Your task to perform on an android device: turn on javascript in the chrome app Image 0: 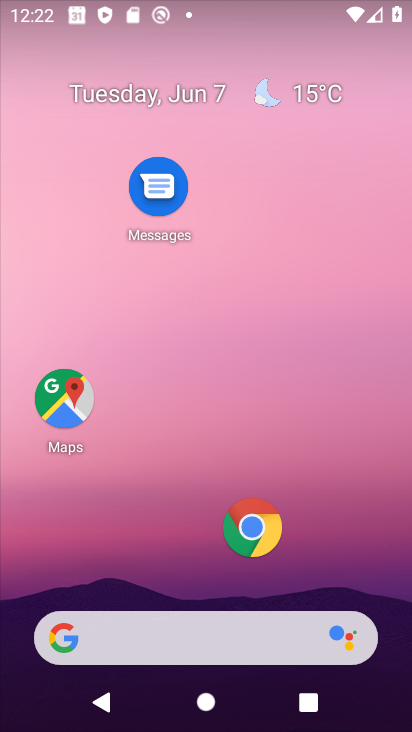
Step 0: click (258, 529)
Your task to perform on an android device: turn on javascript in the chrome app Image 1: 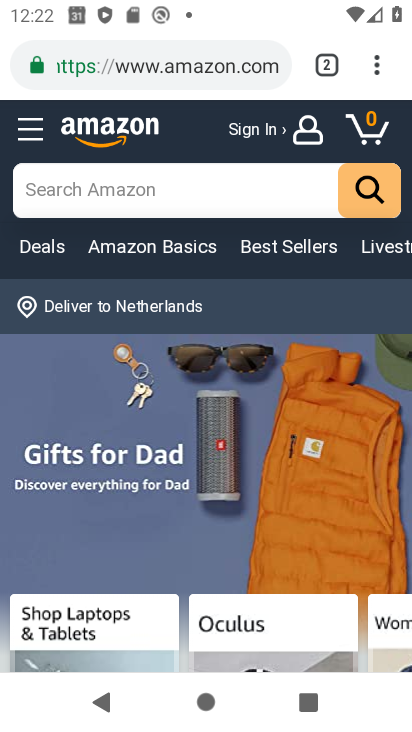
Step 1: click (381, 60)
Your task to perform on an android device: turn on javascript in the chrome app Image 2: 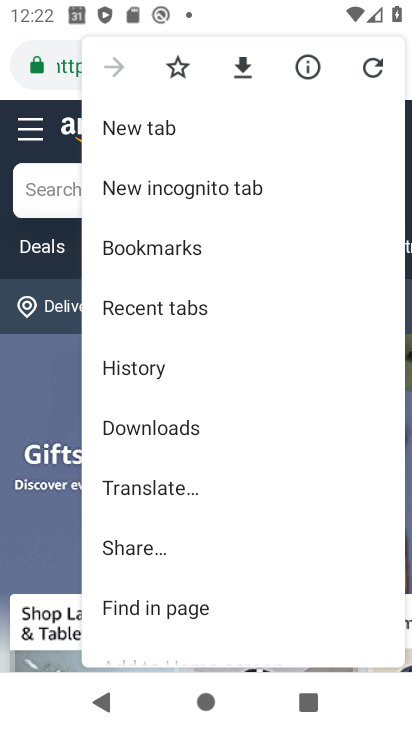
Step 2: drag from (122, 618) to (177, 257)
Your task to perform on an android device: turn on javascript in the chrome app Image 3: 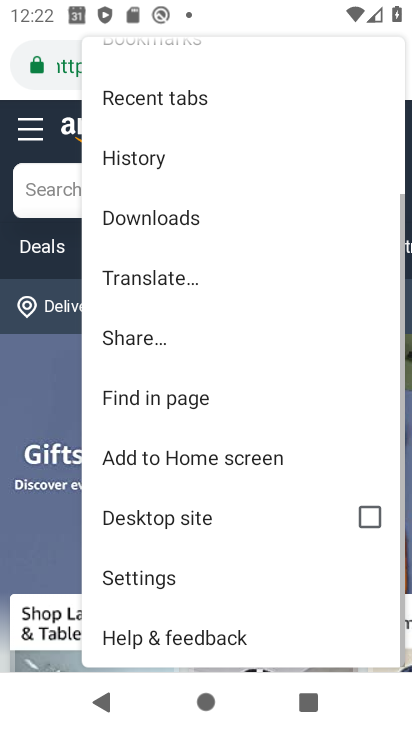
Step 3: click (141, 581)
Your task to perform on an android device: turn on javascript in the chrome app Image 4: 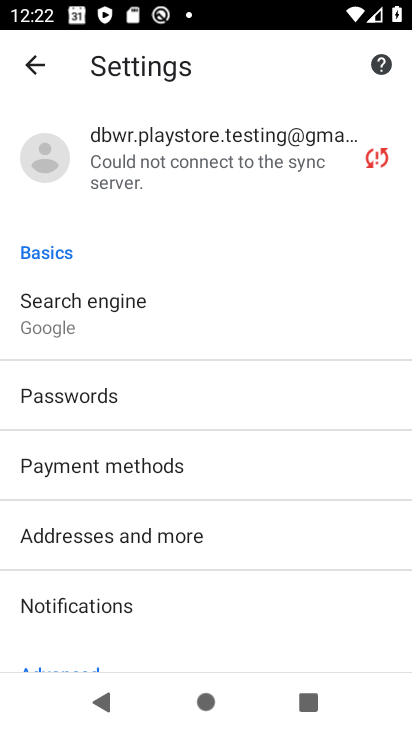
Step 4: drag from (64, 635) to (150, 336)
Your task to perform on an android device: turn on javascript in the chrome app Image 5: 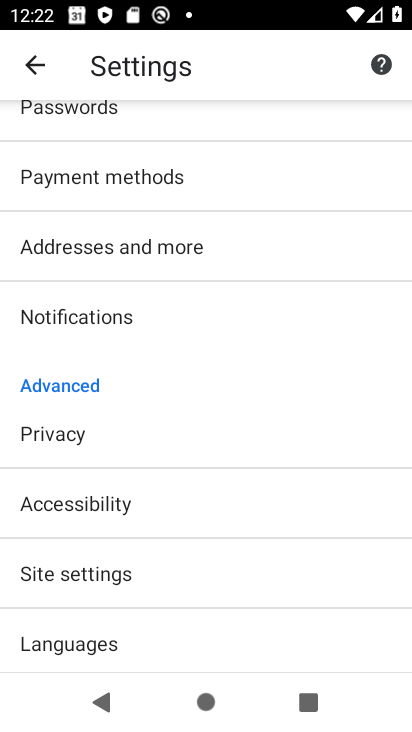
Step 5: click (57, 598)
Your task to perform on an android device: turn on javascript in the chrome app Image 6: 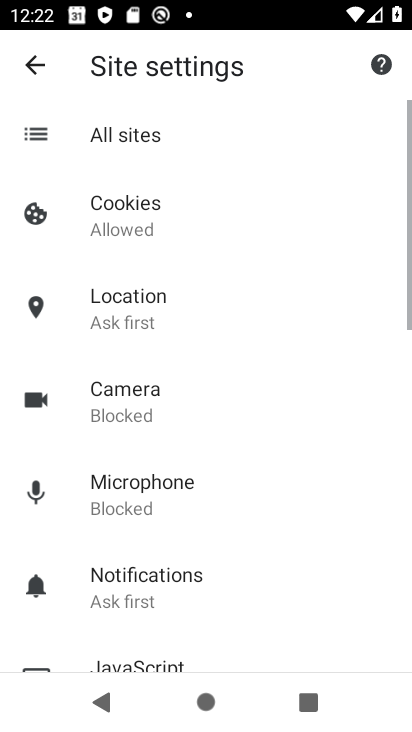
Step 6: drag from (120, 649) to (167, 274)
Your task to perform on an android device: turn on javascript in the chrome app Image 7: 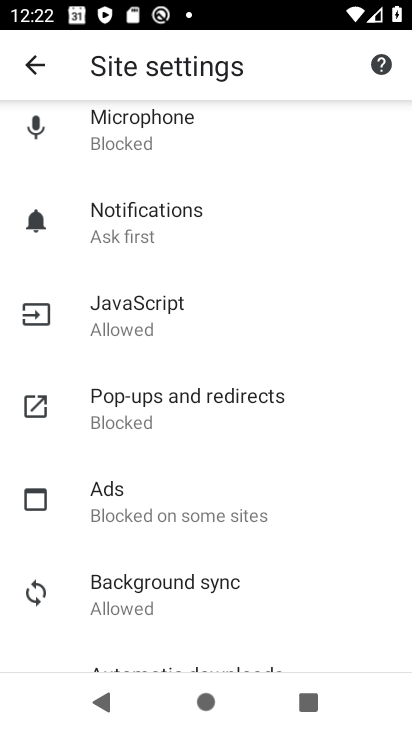
Step 7: click (115, 319)
Your task to perform on an android device: turn on javascript in the chrome app Image 8: 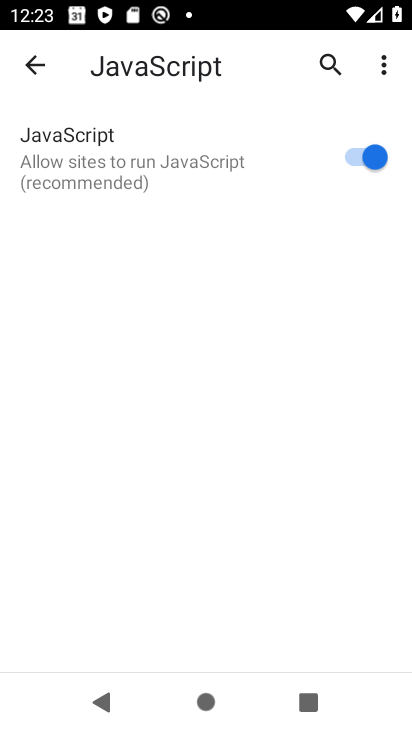
Step 8: task complete